Your task to perform on an android device: open wifi settings Image 0: 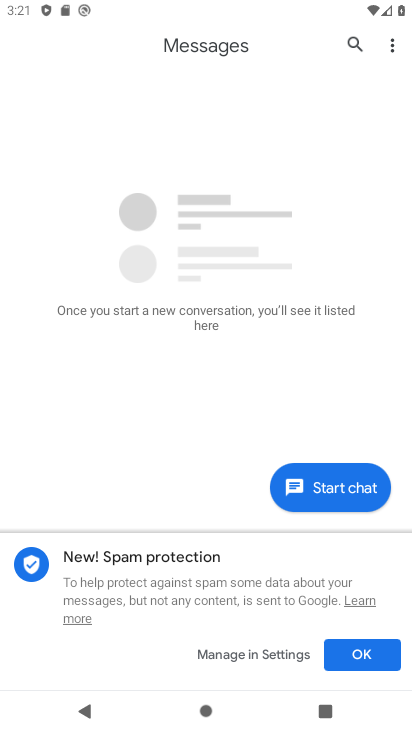
Step 0: press home button
Your task to perform on an android device: open wifi settings Image 1: 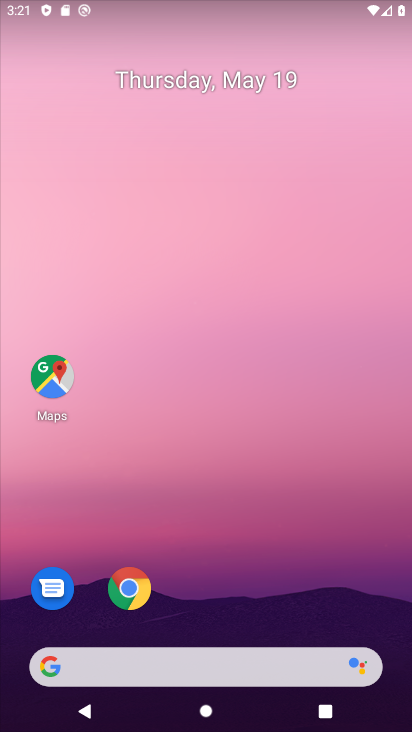
Step 1: drag from (194, 554) to (248, 103)
Your task to perform on an android device: open wifi settings Image 2: 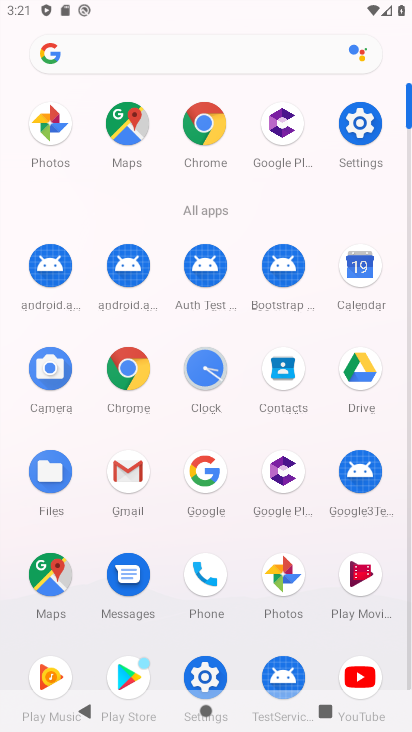
Step 2: click (203, 666)
Your task to perform on an android device: open wifi settings Image 3: 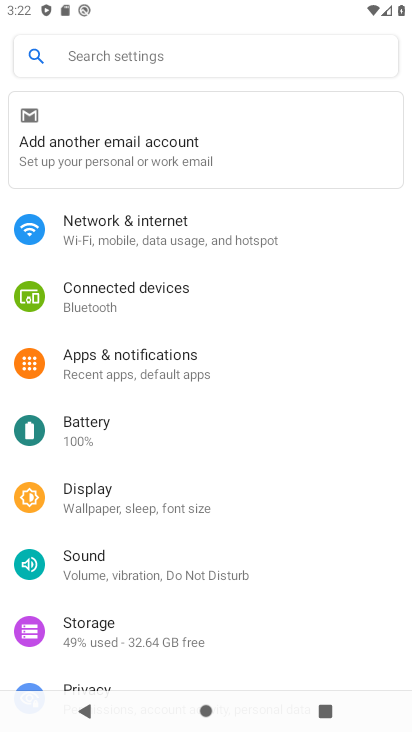
Step 3: click (137, 233)
Your task to perform on an android device: open wifi settings Image 4: 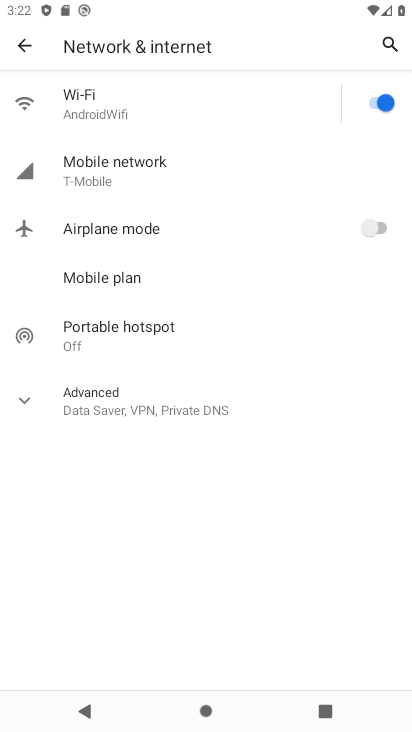
Step 4: click (167, 102)
Your task to perform on an android device: open wifi settings Image 5: 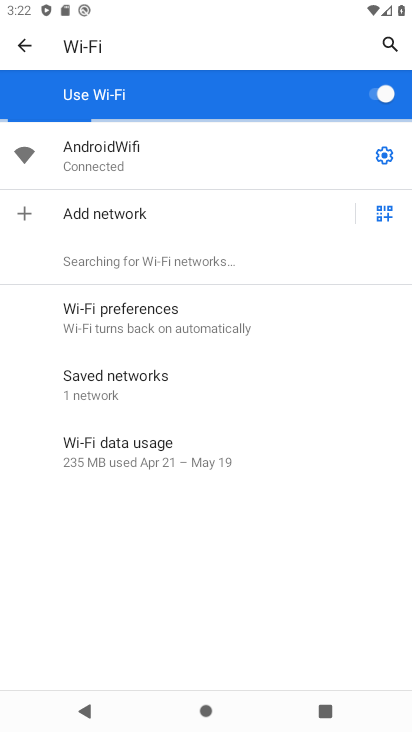
Step 5: task complete